Your task to perform on an android device: Open the calendar and show me this week's events? Image 0: 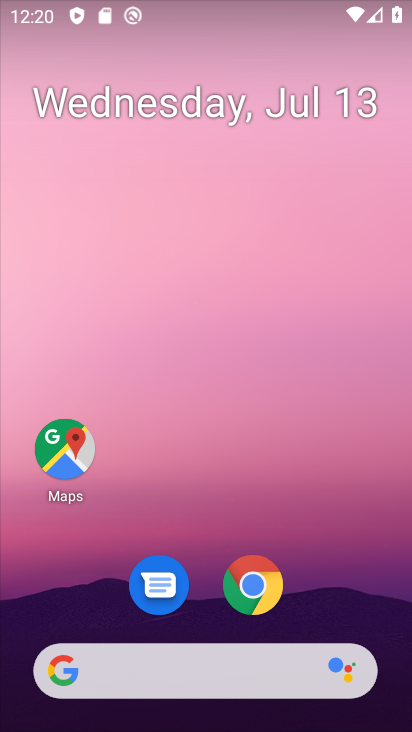
Step 0: drag from (343, 582) to (360, 66)
Your task to perform on an android device: Open the calendar and show me this week's events? Image 1: 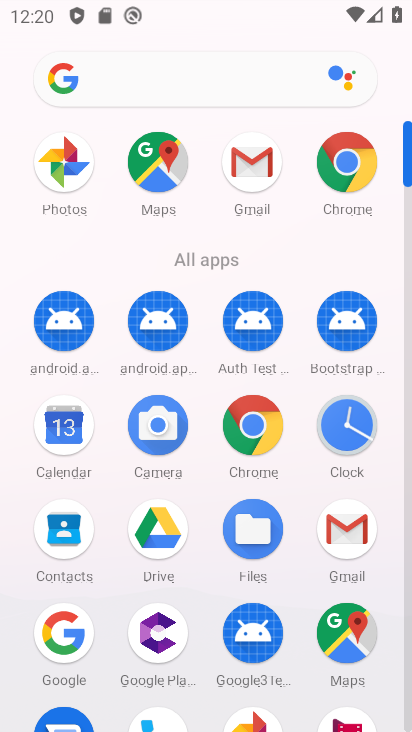
Step 1: click (55, 435)
Your task to perform on an android device: Open the calendar and show me this week's events? Image 2: 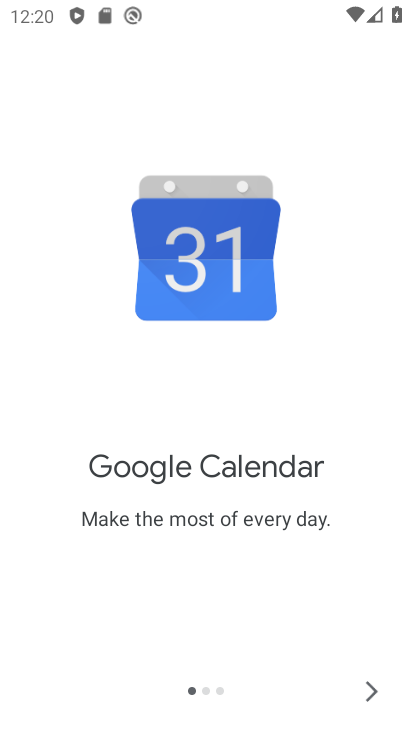
Step 2: click (373, 688)
Your task to perform on an android device: Open the calendar and show me this week's events? Image 3: 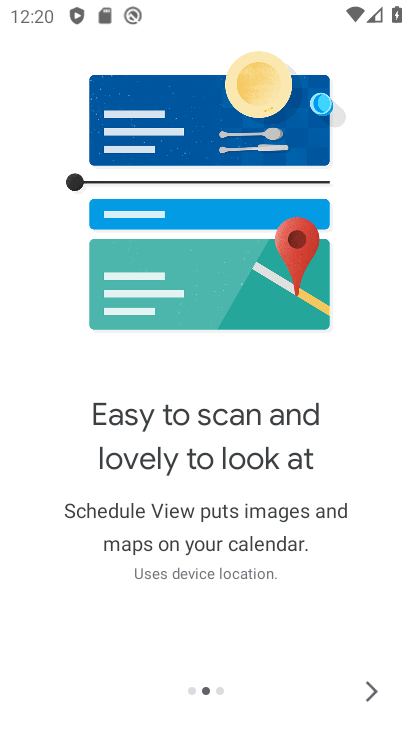
Step 3: click (373, 687)
Your task to perform on an android device: Open the calendar and show me this week's events? Image 4: 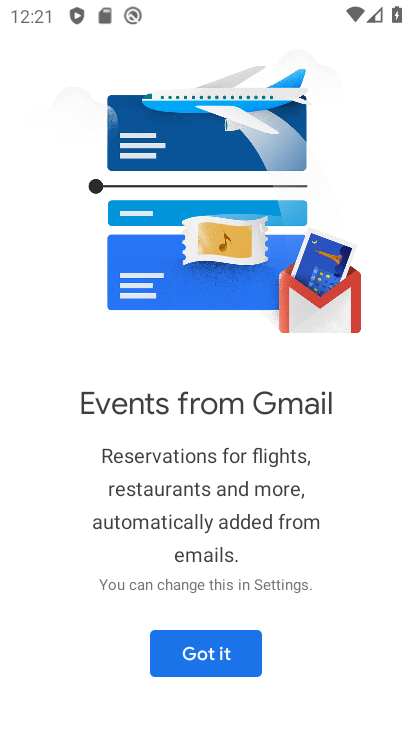
Step 4: click (249, 649)
Your task to perform on an android device: Open the calendar and show me this week's events? Image 5: 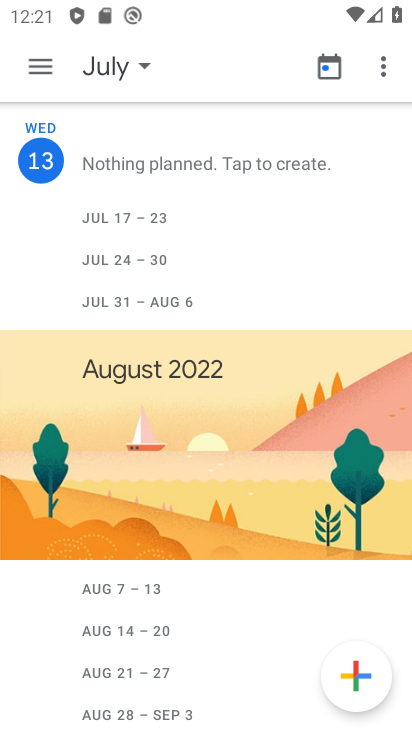
Step 5: click (46, 59)
Your task to perform on an android device: Open the calendar and show me this week's events? Image 6: 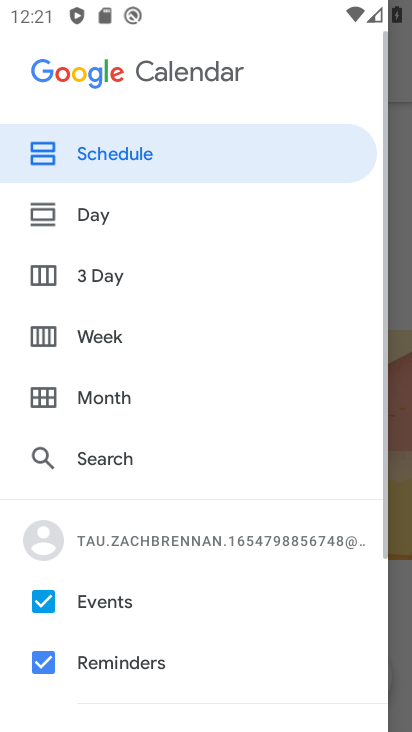
Step 6: click (44, 336)
Your task to perform on an android device: Open the calendar and show me this week's events? Image 7: 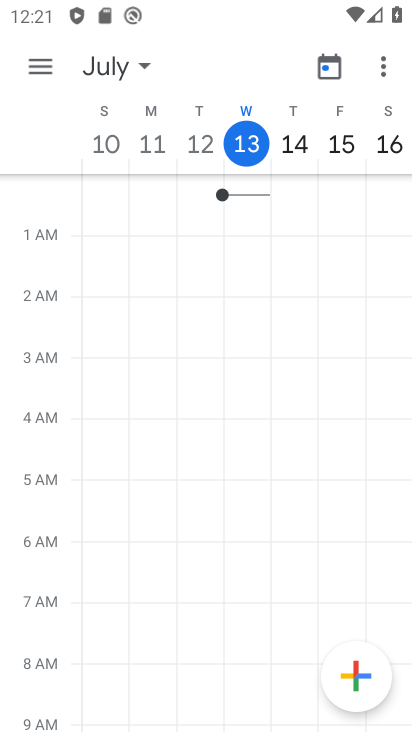
Step 7: task complete